Your task to perform on an android device: turn on sleep mode Image 0: 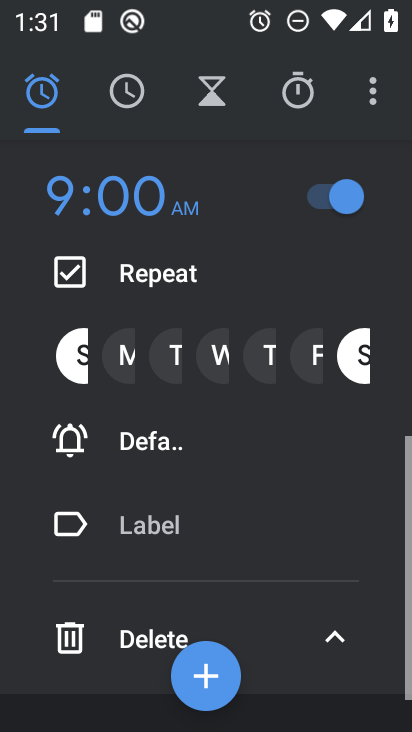
Step 0: press home button
Your task to perform on an android device: turn on sleep mode Image 1: 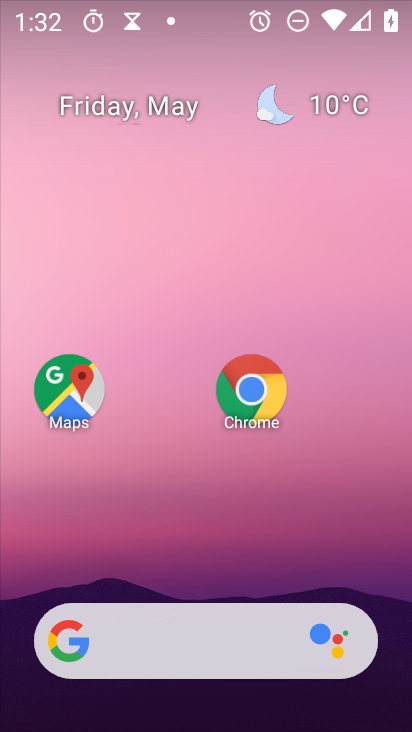
Step 1: drag from (172, 655) to (271, 283)
Your task to perform on an android device: turn on sleep mode Image 2: 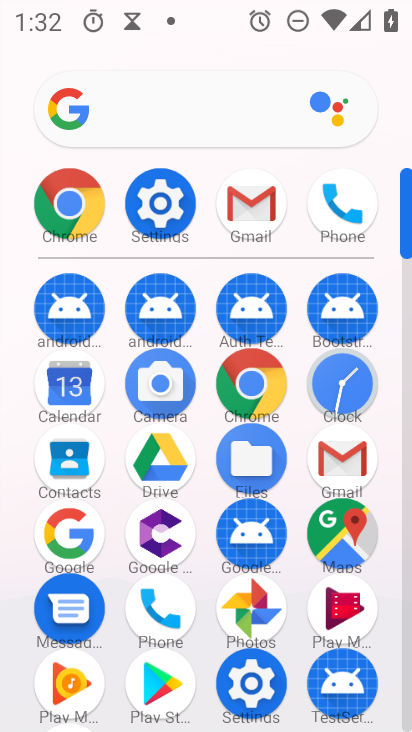
Step 2: click (156, 214)
Your task to perform on an android device: turn on sleep mode Image 3: 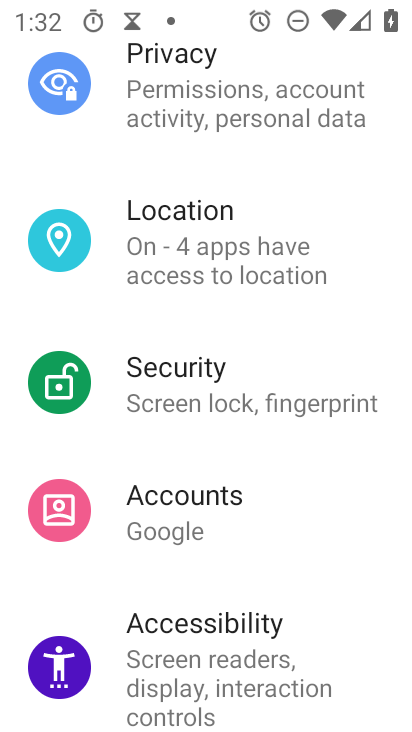
Step 3: drag from (296, 173) to (247, 566)
Your task to perform on an android device: turn on sleep mode Image 4: 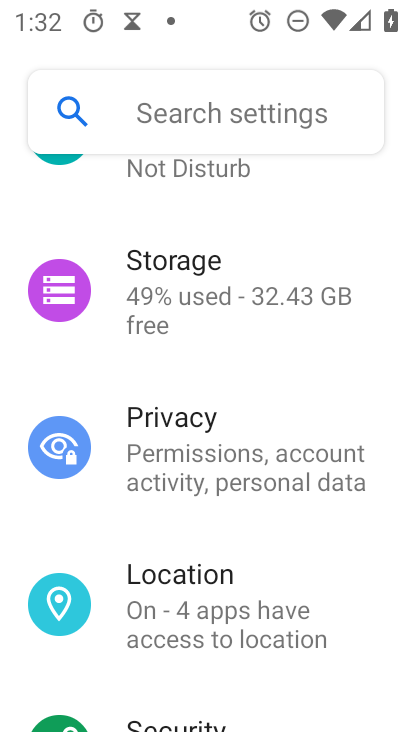
Step 4: drag from (279, 236) to (291, 548)
Your task to perform on an android device: turn on sleep mode Image 5: 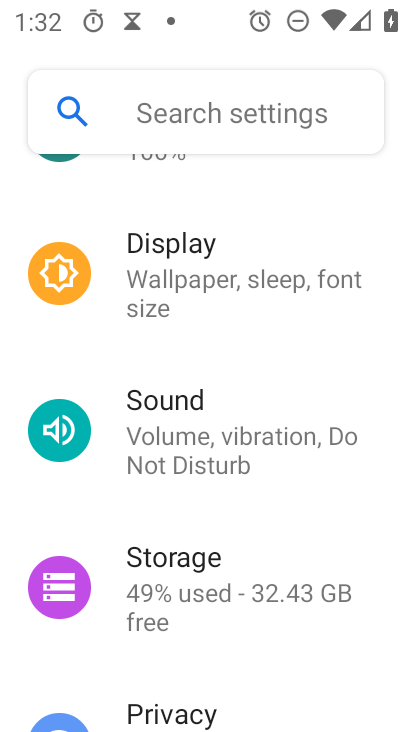
Step 5: click (196, 275)
Your task to perform on an android device: turn on sleep mode Image 6: 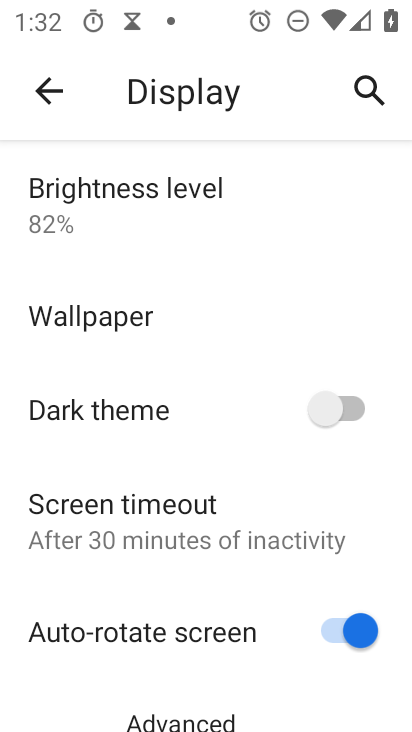
Step 6: task complete